Your task to perform on an android device: Show me popular games on the Play Store Image 0: 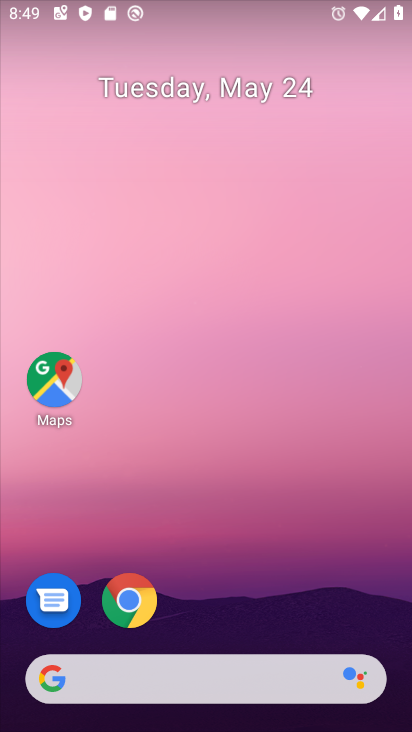
Step 0: drag from (169, 727) to (177, 171)
Your task to perform on an android device: Show me popular games on the Play Store Image 1: 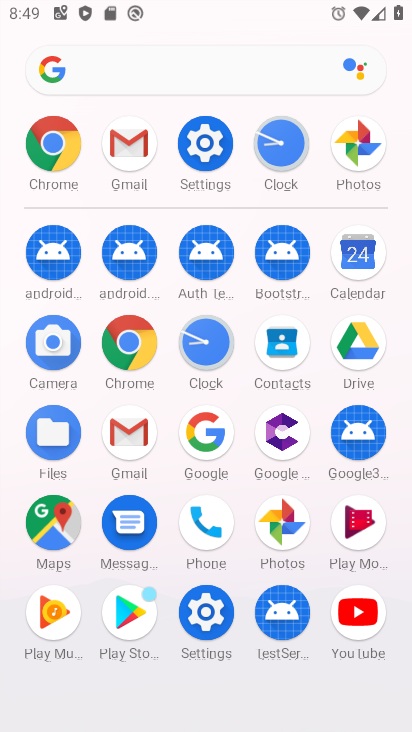
Step 1: click (130, 607)
Your task to perform on an android device: Show me popular games on the Play Store Image 2: 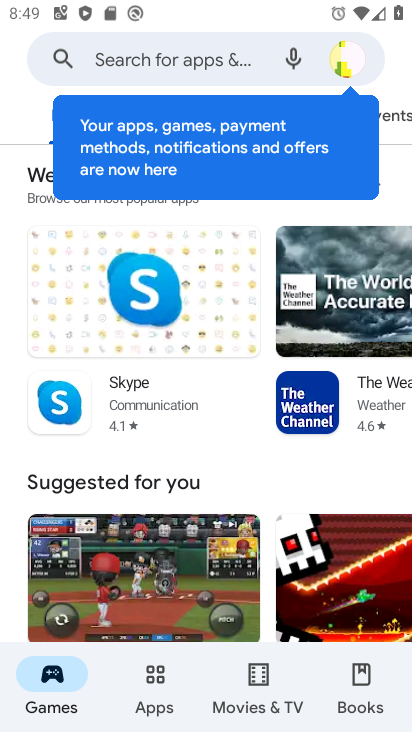
Step 2: drag from (205, 604) to (190, 221)
Your task to perform on an android device: Show me popular games on the Play Store Image 3: 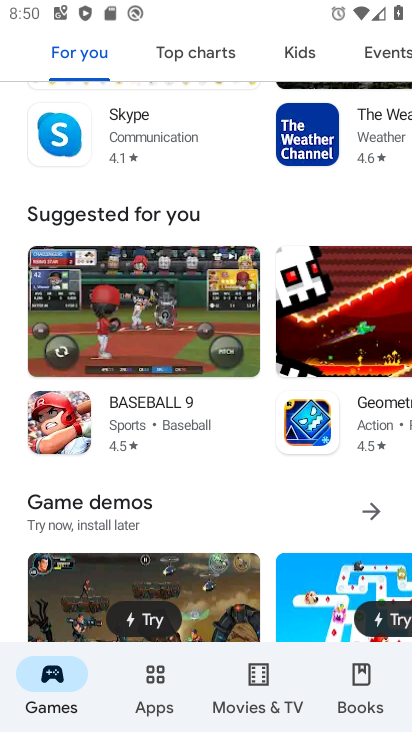
Step 3: drag from (204, 596) to (209, 186)
Your task to perform on an android device: Show me popular games on the Play Store Image 4: 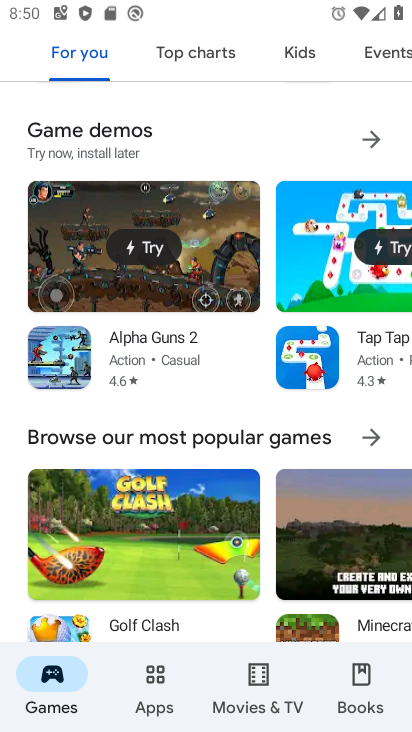
Step 4: click (373, 435)
Your task to perform on an android device: Show me popular games on the Play Store Image 5: 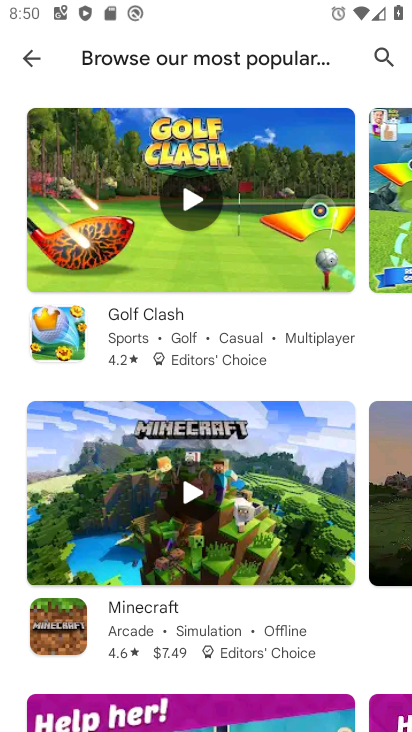
Step 5: task complete